Your task to perform on an android device: Open Youtube and go to "Your channel" Image 0: 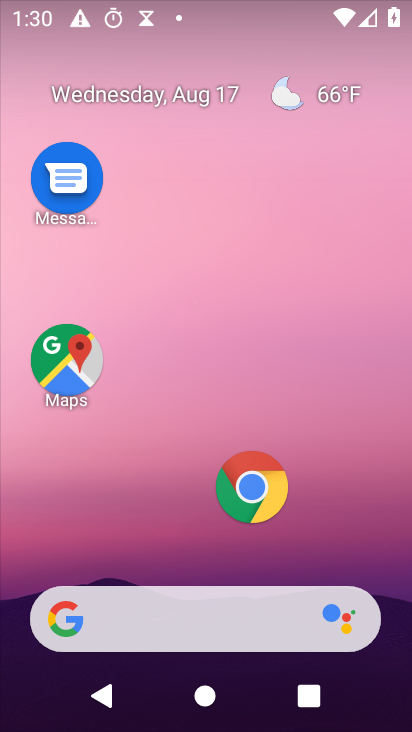
Step 0: press home button
Your task to perform on an android device: Open Youtube and go to "Your channel" Image 1: 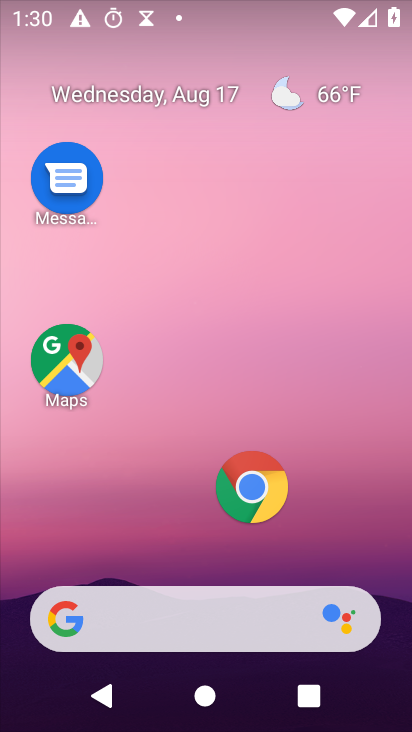
Step 1: drag from (215, 556) to (286, 53)
Your task to perform on an android device: Open Youtube and go to "Your channel" Image 2: 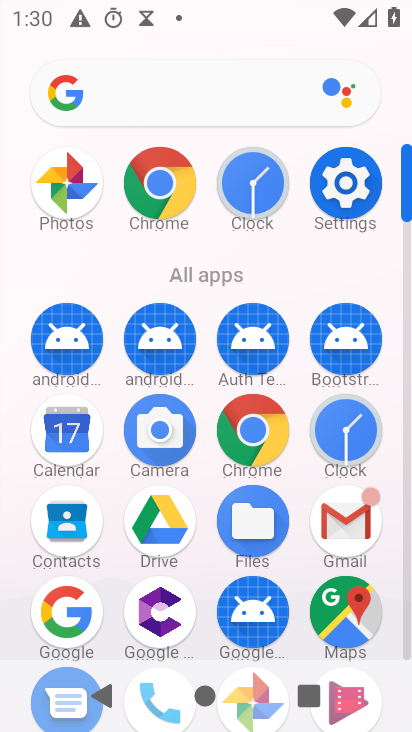
Step 2: drag from (316, 369) to (313, 183)
Your task to perform on an android device: Open Youtube and go to "Your channel" Image 3: 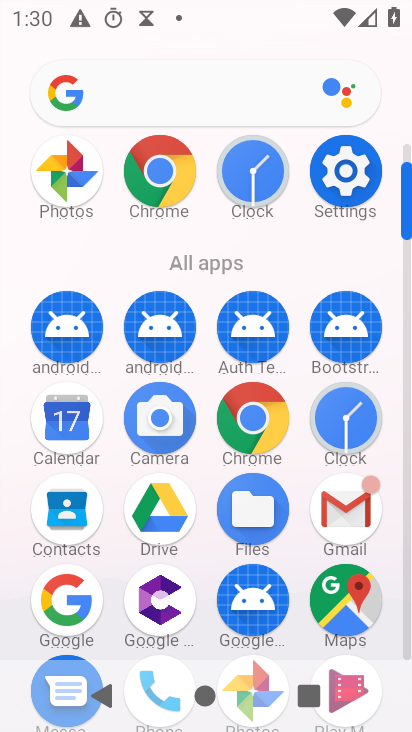
Step 3: drag from (206, 517) to (247, 212)
Your task to perform on an android device: Open Youtube and go to "Your channel" Image 4: 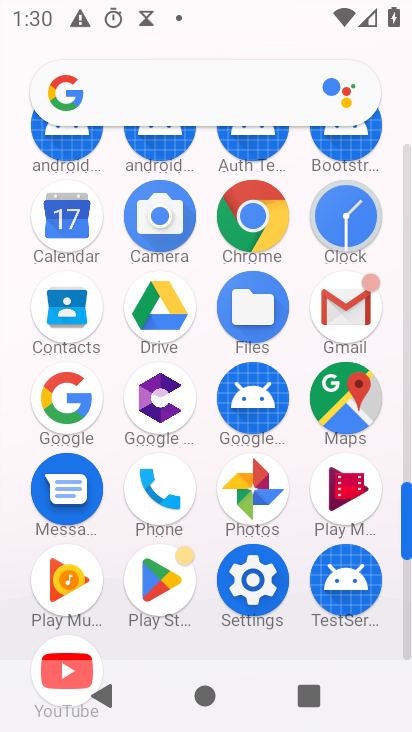
Step 4: click (67, 671)
Your task to perform on an android device: Open Youtube and go to "Your channel" Image 5: 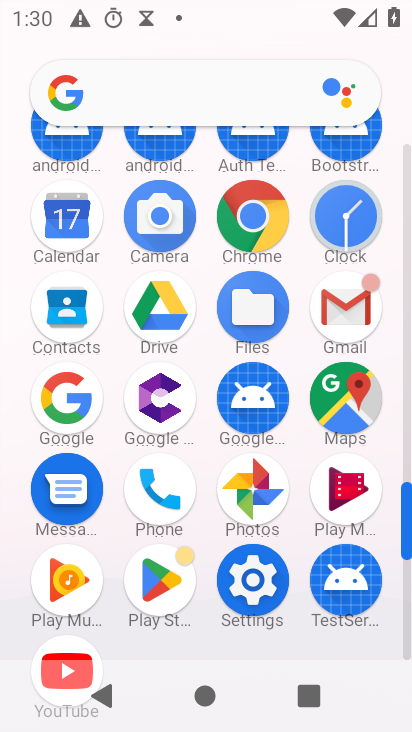
Step 5: drag from (235, 561) to (254, 209)
Your task to perform on an android device: Open Youtube and go to "Your channel" Image 6: 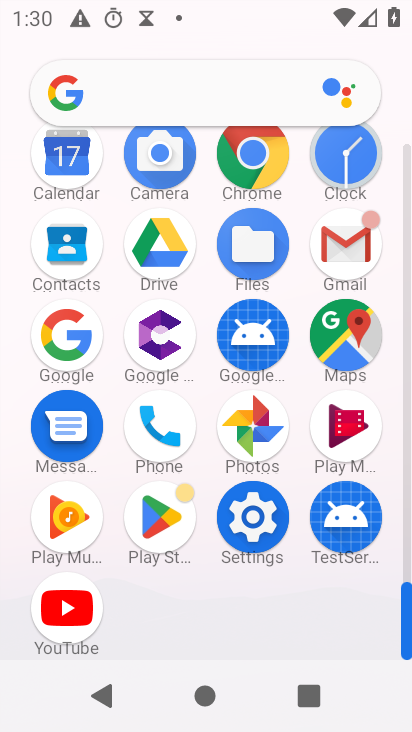
Step 6: click (59, 630)
Your task to perform on an android device: Open Youtube and go to "Your channel" Image 7: 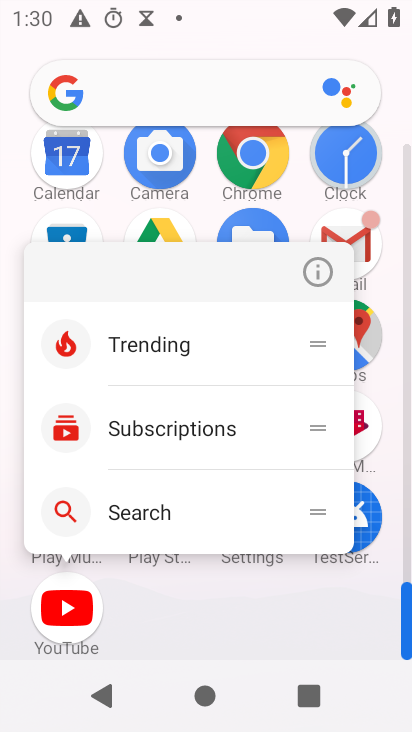
Step 7: click (59, 592)
Your task to perform on an android device: Open Youtube and go to "Your channel" Image 8: 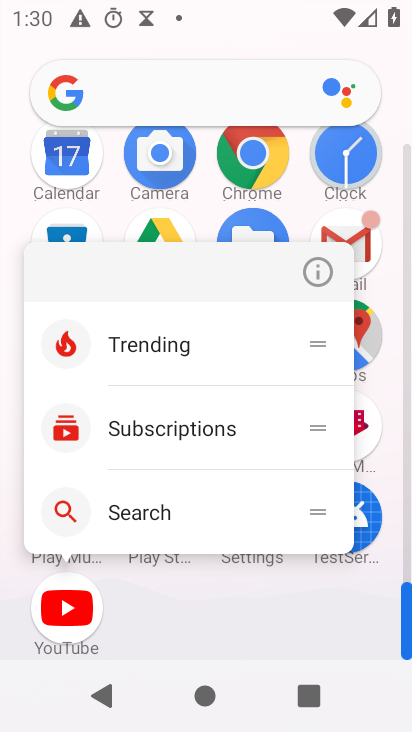
Step 8: click (67, 606)
Your task to perform on an android device: Open Youtube and go to "Your channel" Image 9: 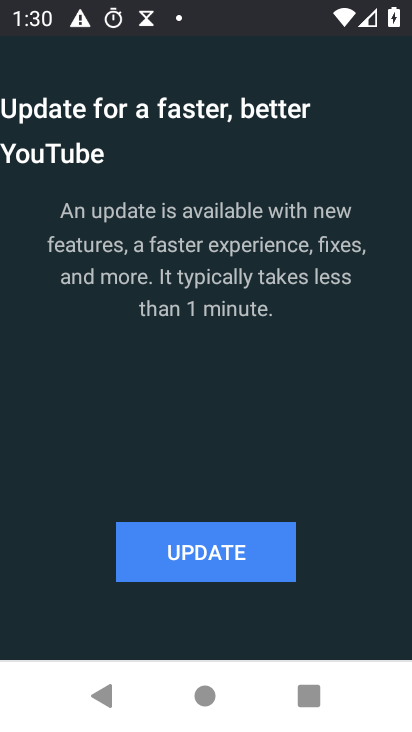
Step 9: click (166, 573)
Your task to perform on an android device: Open Youtube and go to "Your channel" Image 10: 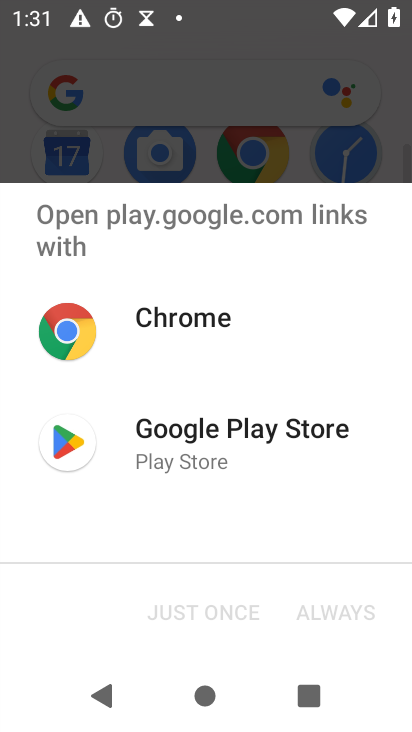
Step 10: click (203, 459)
Your task to perform on an android device: Open Youtube and go to "Your channel" Image 11: 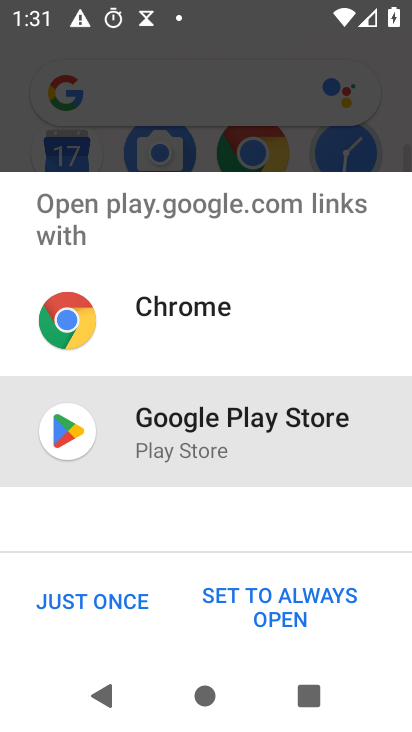
Step 11: click (92, 603)
Your task to perform on an android device: Open Youtube and go to "Your channel" Image 12: 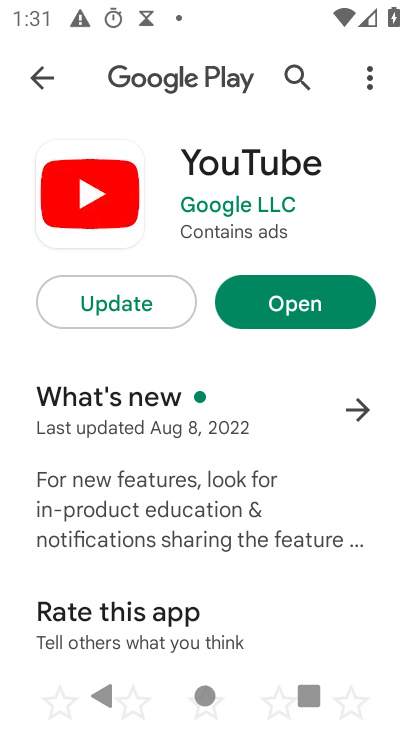
Step 12: click (137, 312)
Your task to perform on an android device: Open Youtube and go to "Your channel" Image 13: 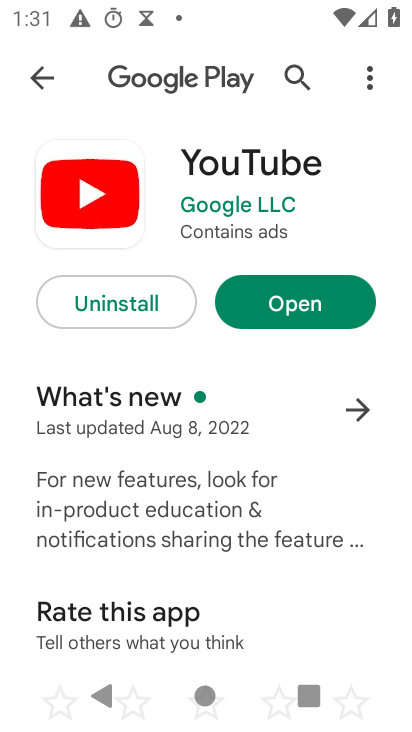
Step 13: click (300, 302)
Your task to perform on an android device: Open Youtube and go to "Your channel" Image 14: 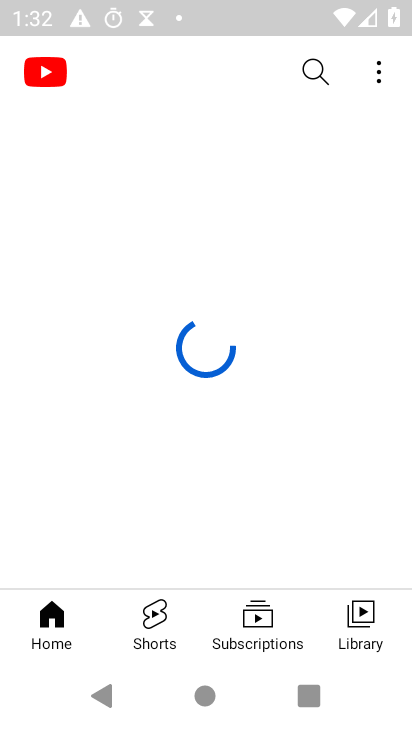
Step 14: click (374, 75)
Your task to perform on an android device: Open Youtube and go to "Your channel" Image 15: 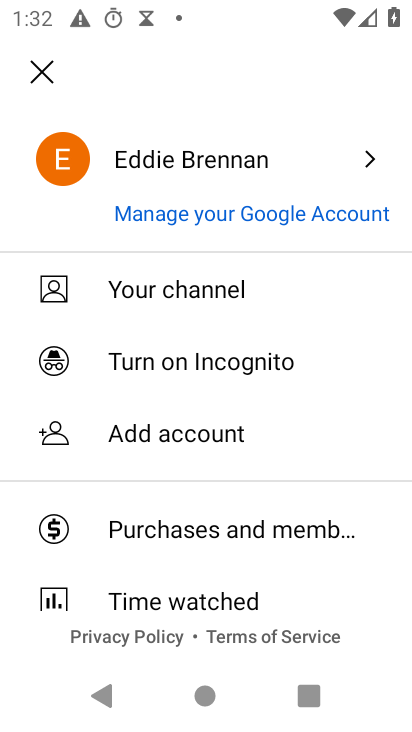
Step 15: click (171, 287)
Your task to perform on an android device: Open Youtube and go to "Your channel" Image 16: 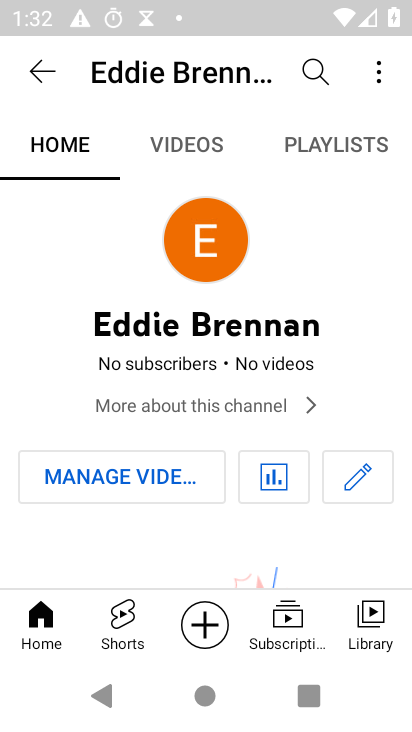
Step 16: task complete